Your task to perform on an android device: Find coffee shops on Maps Image 0: 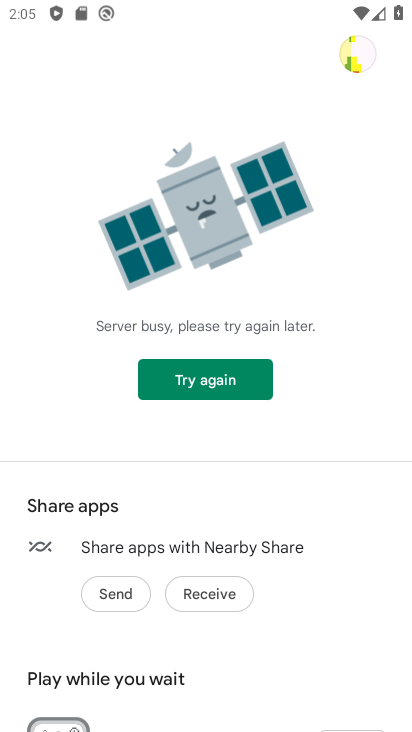
Step 0: press home button
Your task to perform on an android device: Find coffee shops on Maps Image 1: 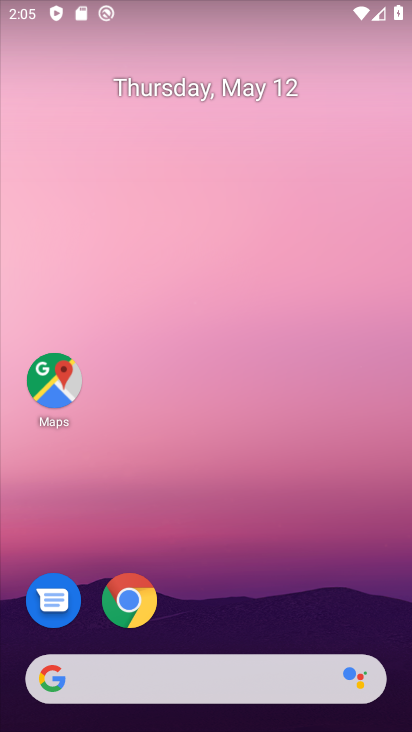
Step 1: click (56, 363)
Your task to perform on an android device: Find coffee shops on Maps Image 2: 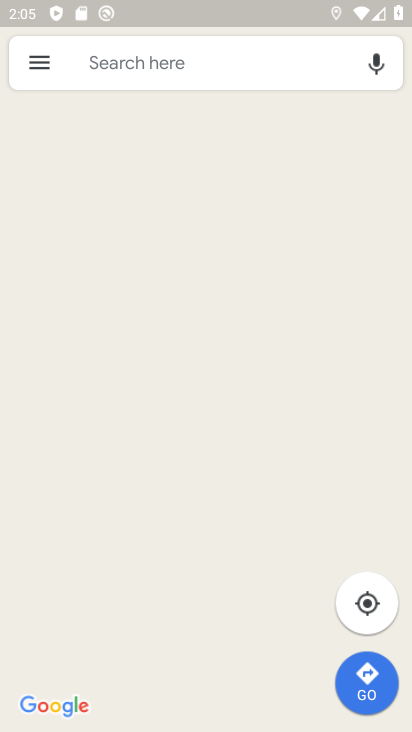
Step 2: click (203, 67)
Your task to perform on an android device: Find coffee shops on Maps Image 3: 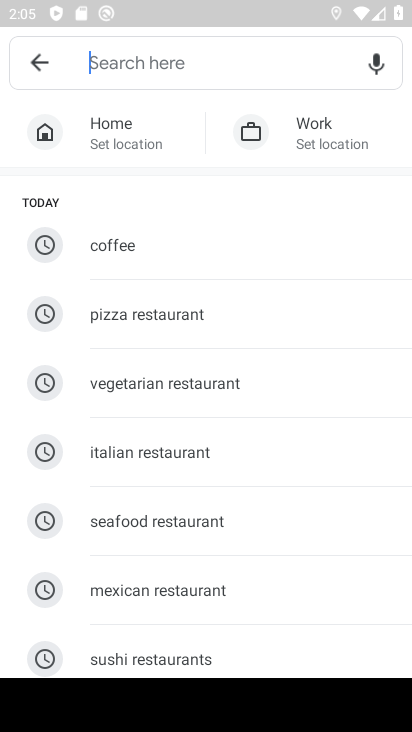
Step 3: type "coffee shops"
Your task to perform on an android device: Find coffee shops on Maps Image 4: 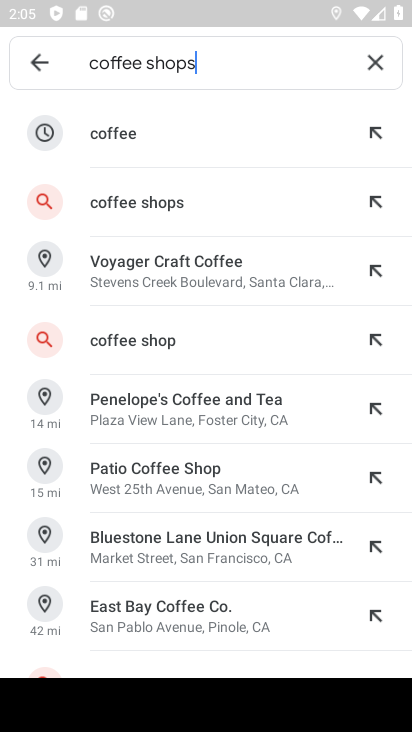
Step 4: click (195, 204)
Your task to perform on an android device: Find coffee shops on Maps Image 5: 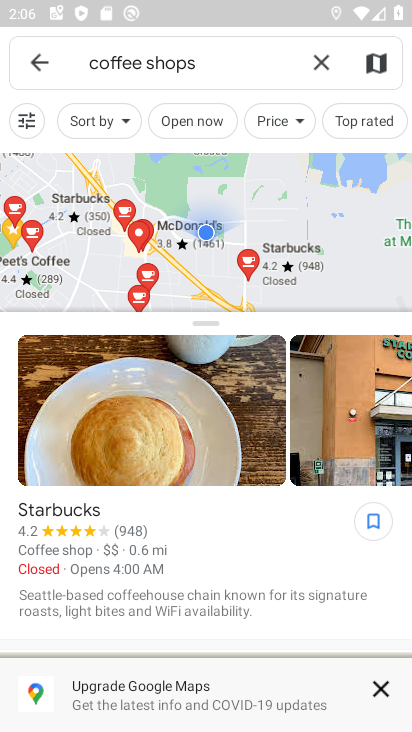
Step 5: task complete